Your task to perform on an android device: open a bookmark in the chrome app Image 0: 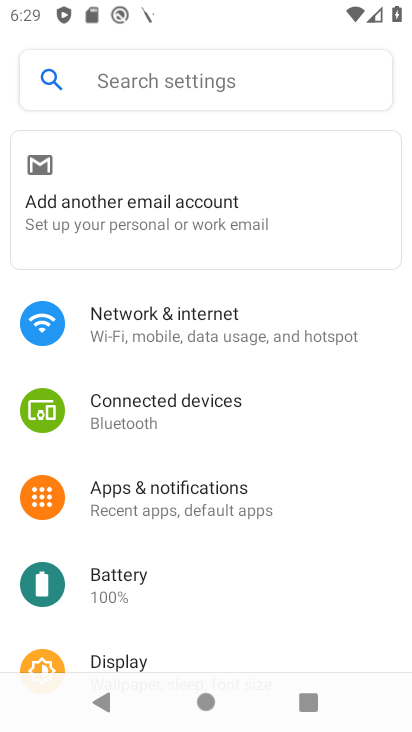
Step 0: press home button
Your task to perform on an android device: open a bookmark in the chrome app Image 1: 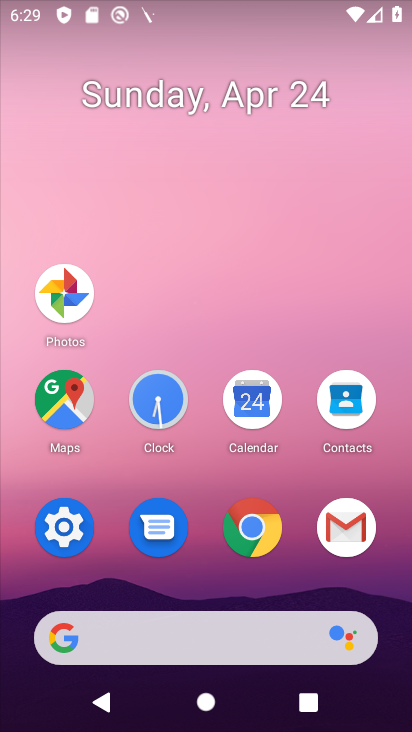
Step 1: click (251, 530)
Your task to perform on an android device: open a bookmark in the chrome app Image 2: 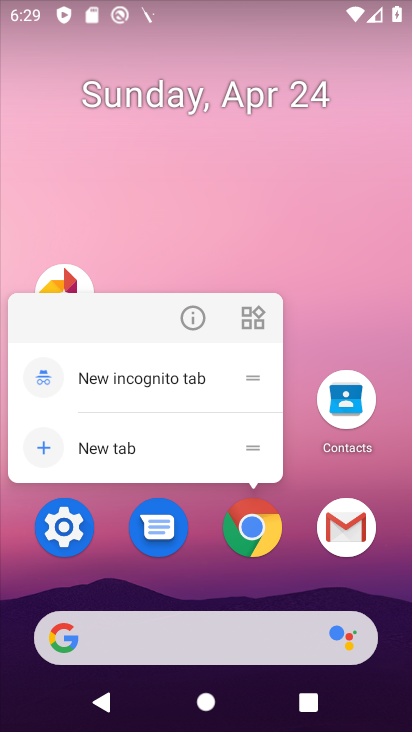
Step 2: click (241, 532)
Your task to perform on an android device: open a bookmark in the chrome app Image 3: 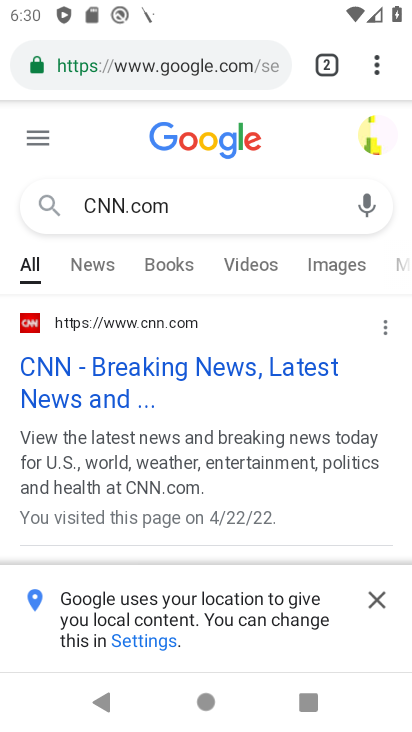
Step 3: click (376, 67)
Your task to perform on an android device: open a bookmark in the chrome app Image 4: 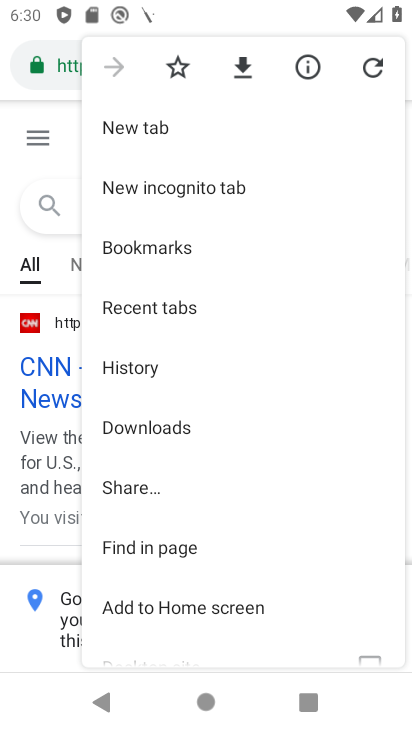
Step 4: click (129, 243)
Your task to perform on an android device: open a bookmark in the chrome app Image 5: 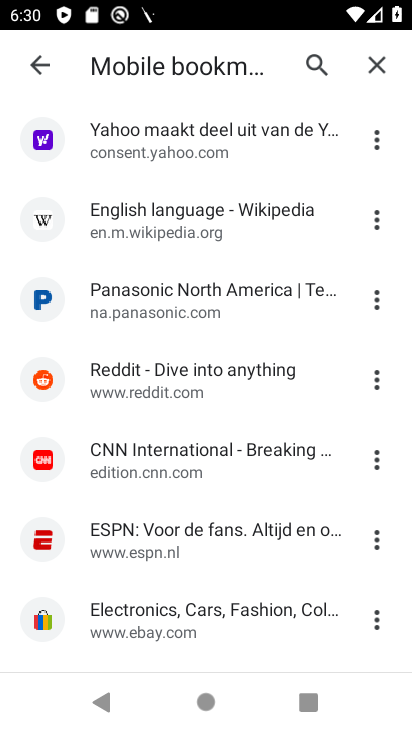
Step 5: task complete